Your task to perform on an android device: turn off sleep mode Image 0: 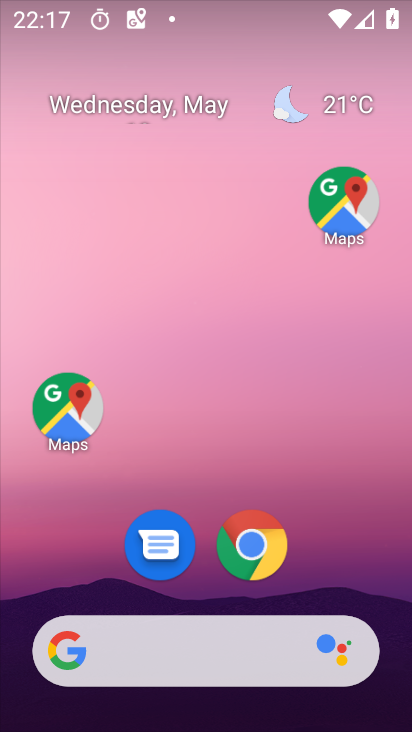
Step 0: drag from (324, 590) to (349, 31)
Your task to perform on an android device: turn off sleep mode Image 1: 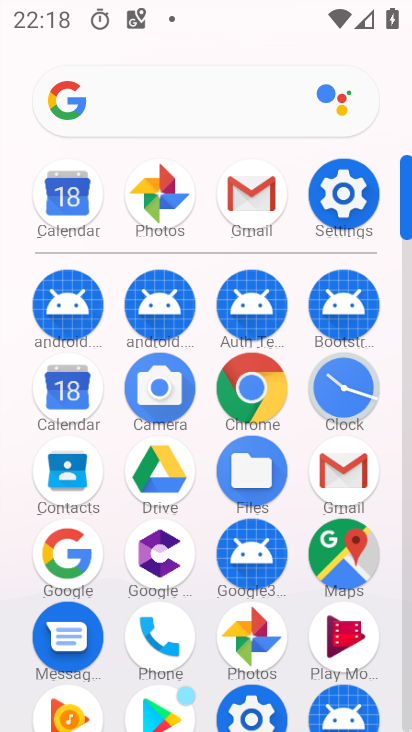
Step 1: click (355, 192)
Your task to perform on an android device: turn off sleep mode Image 2: 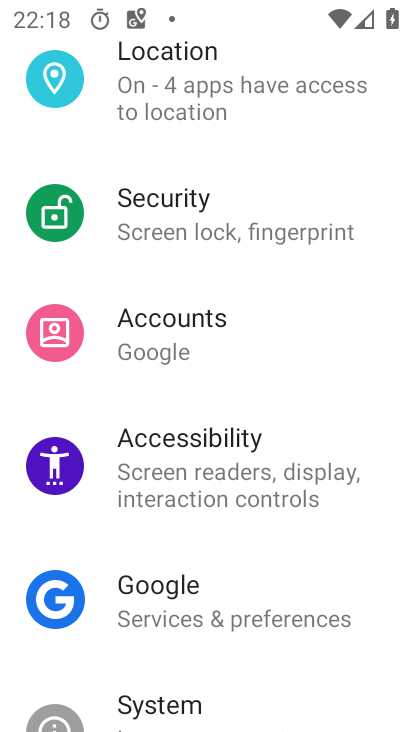
Step 2: drag from (202, 317) to (241, 454)
Your task to perform on an android device: turn off sleep mode Image 3: 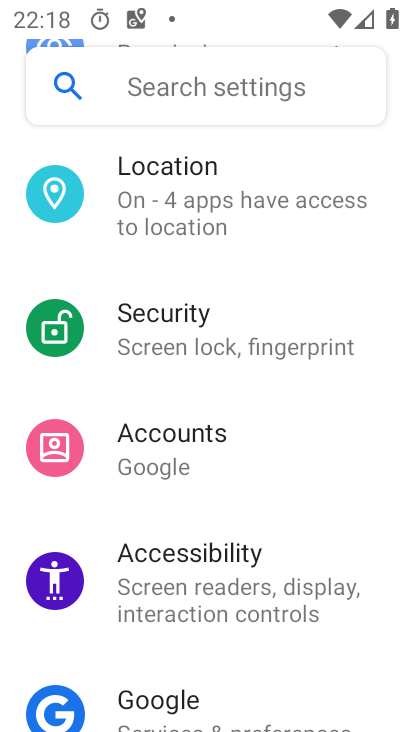
Step 3: drag from (241, 282) to (281, 419)
Your task to perform on an android device: turn off sleep mode Image 4: 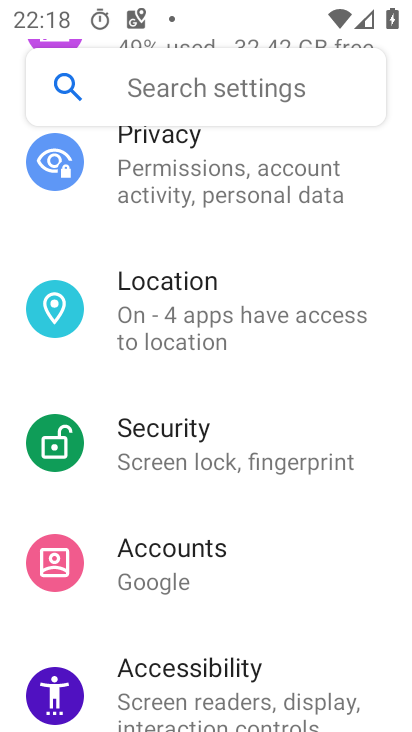
Step 4: drag from (260, 306) to (258, 398)
Your task to perform on an android device: turn off sleep mode Image 5: 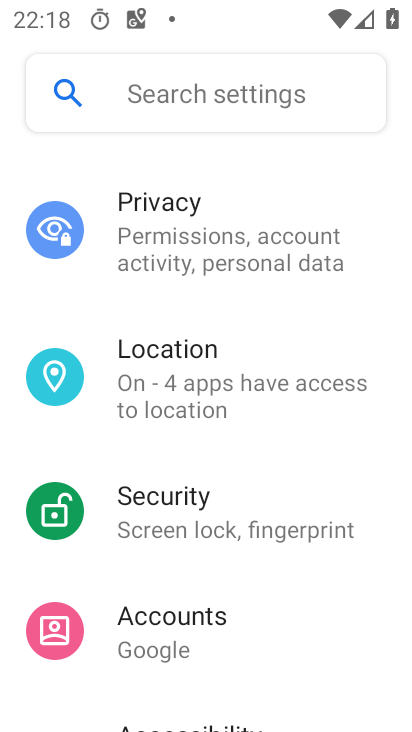
Step 5: drag from (228, 656) to (238, 315)
Your task to perform on an android device: turn off sleep mode Image 6: 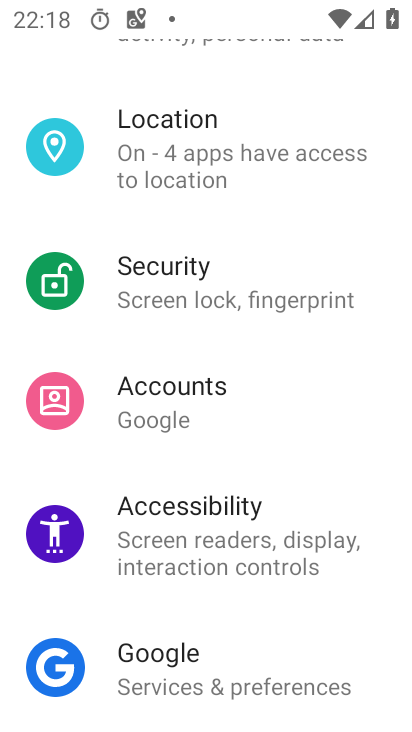
Step 6: drag from (251, 321) to (204, 640)
Your task to perform on an android device: turn off sleep mode Image 7: 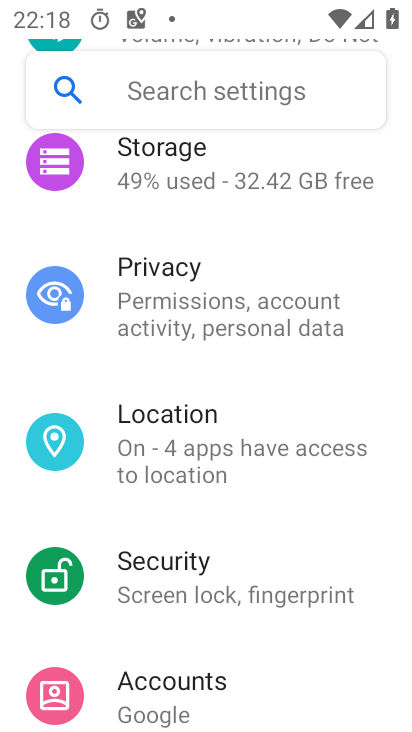
Step 7: drag from (206, 276) to (191, 498)
Your task to perform on an android device: turn off sleep mode Image 8: 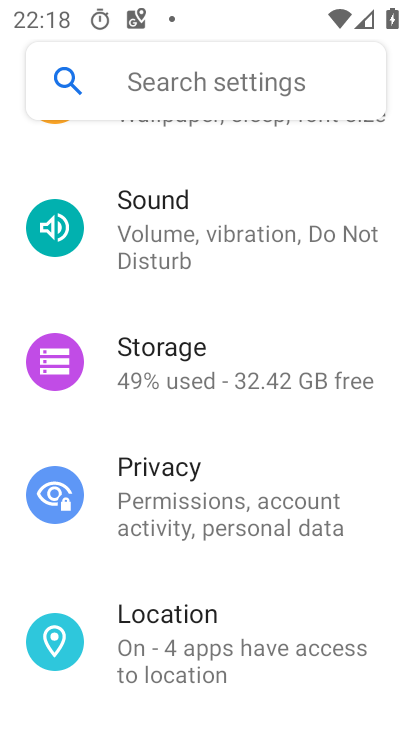
Step 8: drag from (167, 313) to (160, 434)
Your task to perform on an android device: turn off sleep mode Image 9: 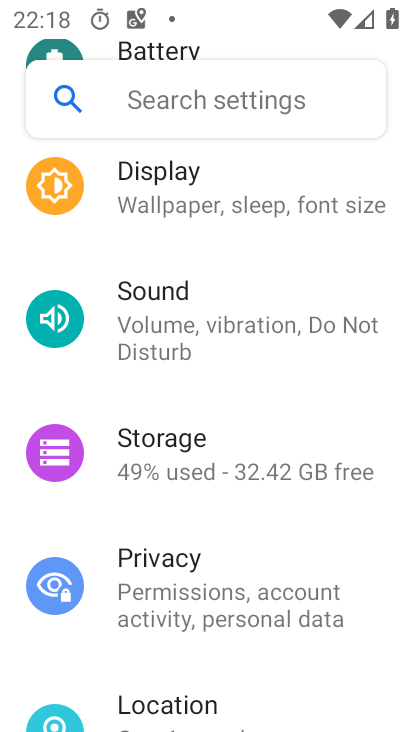
Step 9: drag from (195, 254) to (137, 470)
Your task to perform on an android device: turn off sleep mode Image 10: 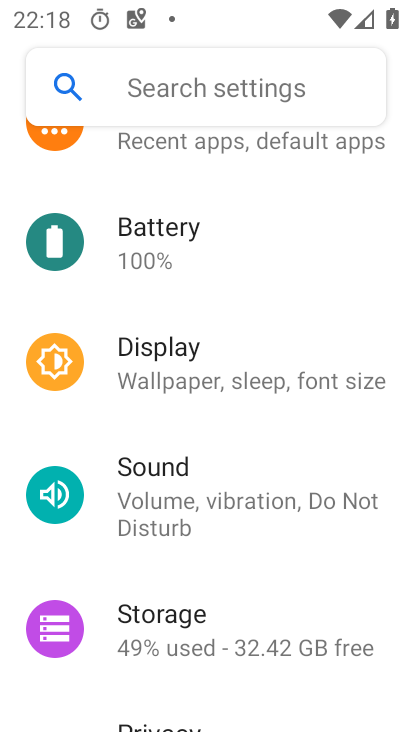
Step 10: click (157, 346)
Your task to perform on an android device: turn off sleep mode Image 11: 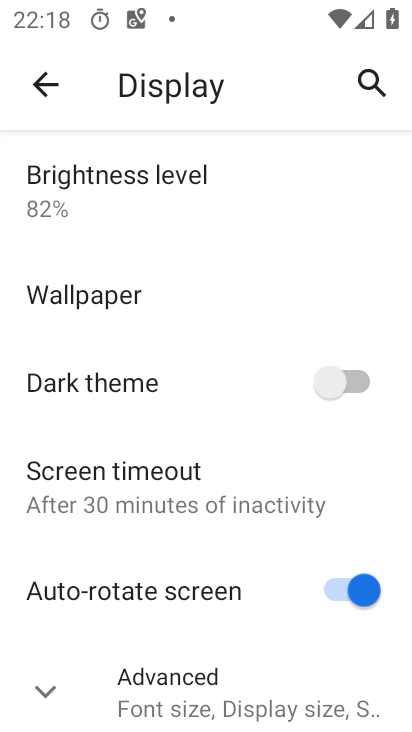
Step 11: click (150, 715)
Your task to perform on an android device: turn off sleep mode Image 12: 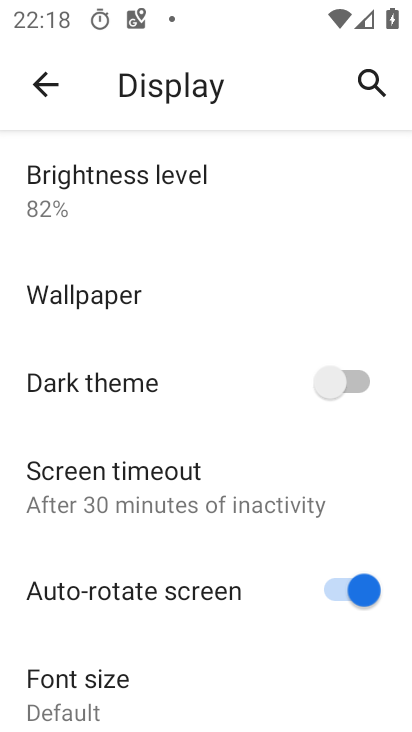
Step 12: task complete